Your task to perform on an android device: toggle notification dots Image 0: 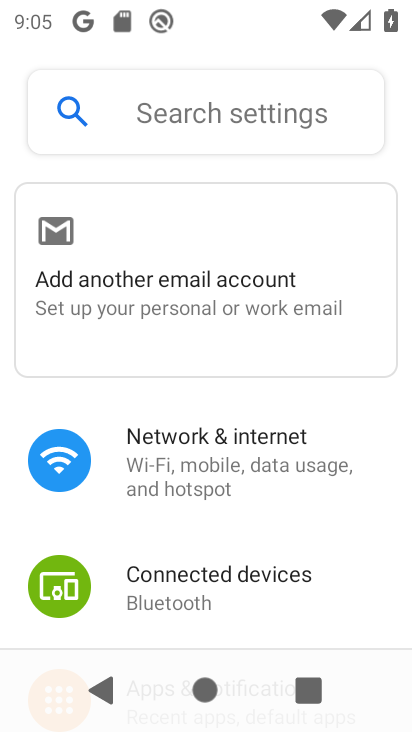
Step 0: drag from (369, 588) to (375, 339)
Your task to perform on an android device: toggle notification dots Image 1: 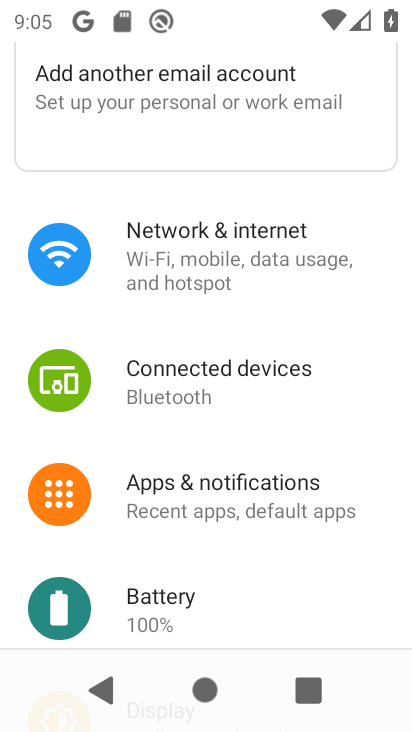
Step 1: drag from (372, 566) to (375, 362)
Your task to perform on an android device: toggle notification dots Image 2: 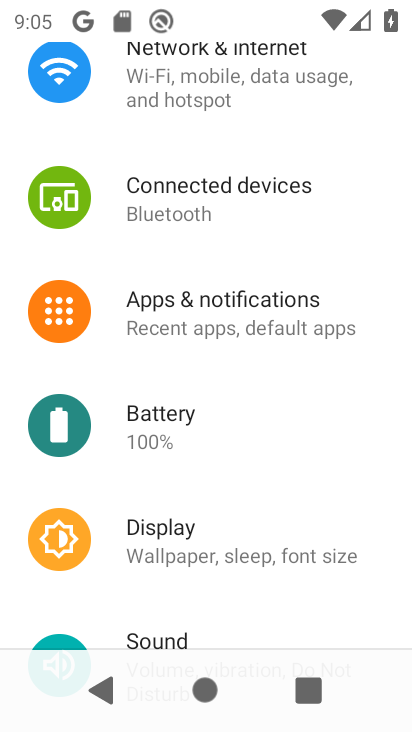
Step 2: drag from (355, 592) to (351, 242)
Your task to perform on an android device: toggle notification dots Image 3: 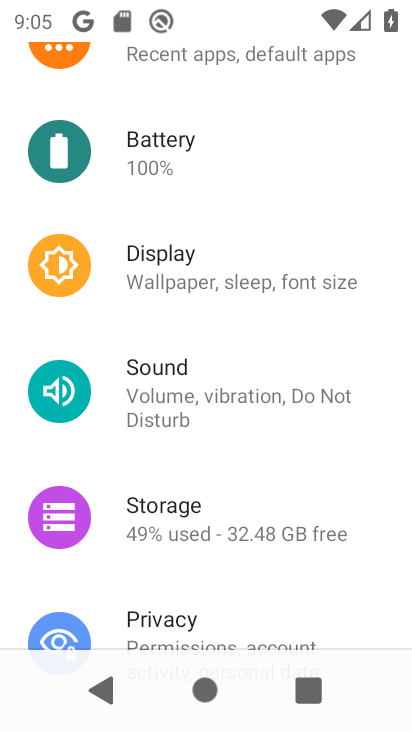
Step 3: drag from (383, 555) to (383, 278)
Your task to perform on an android device: toggle notification dots Image 4: 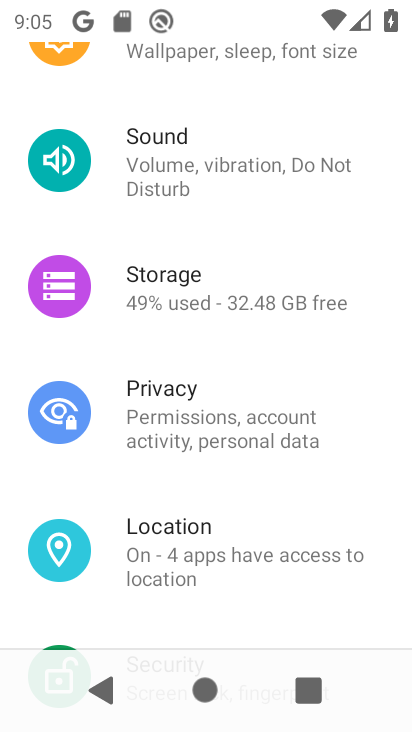
Step 4: drag from (368, 589) to (382, 272)
Your task to perform on an android device: toggle notification dots Image 5: 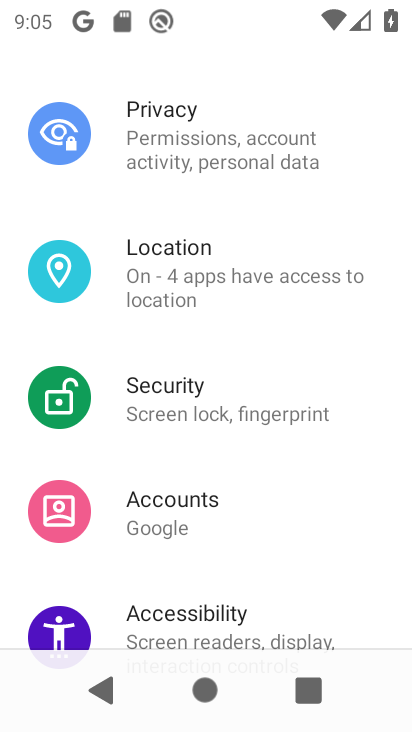
Step 5: drag from (350, 546) to (373, 264)
Your task to perform on an android device: toggle notification dots Image 6: 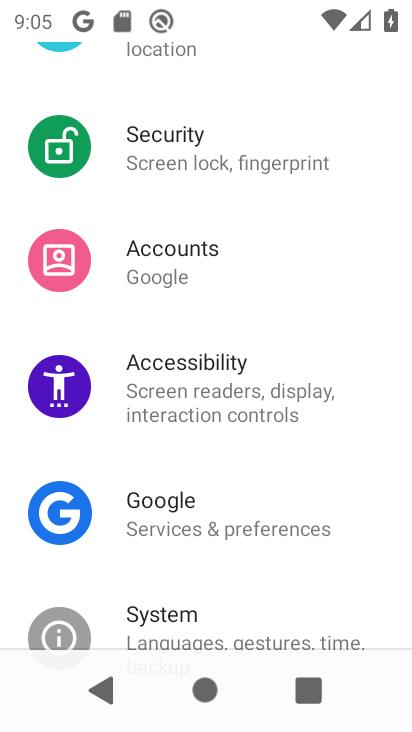
Step 6: drag from (355, 573) to (374, 273)
Your task to perform on an android device: toggle notification dots Image 7: 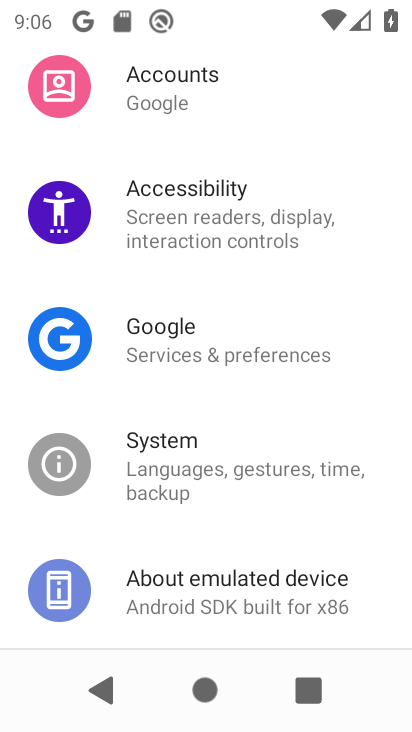
Step 7: drag from (381, 196) to (372, 430)
Your task to perform on an android device: toggle notification dots Image 8: 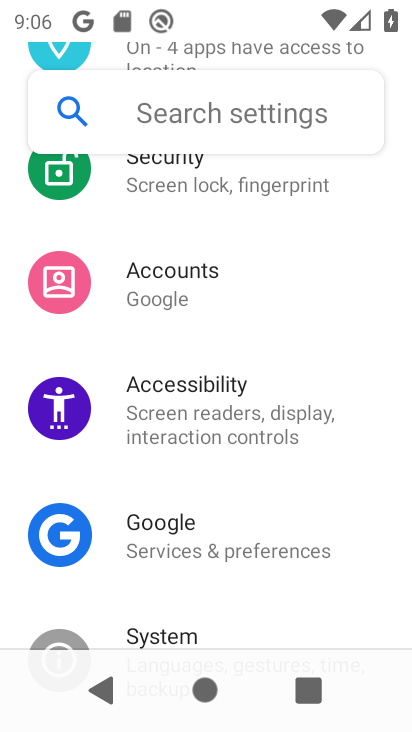
Step 8: drag from (386, 239) to (362, 441)
Your task to perform on an android device: toggle notification dots Image 9: 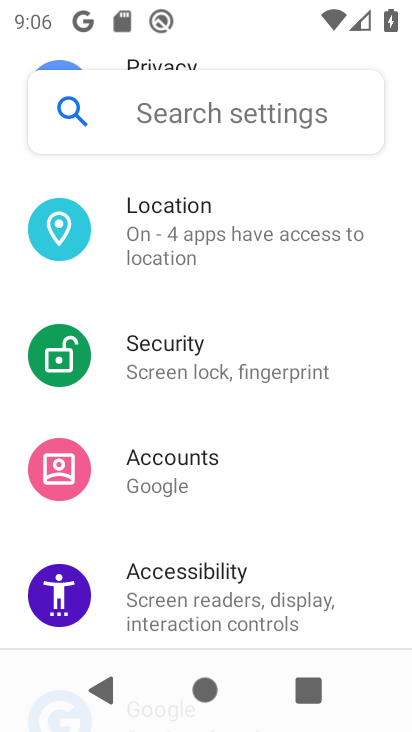
Step 9: drag from (384, 223) to (366, 443)
Your task to perform on an android device: toggle notification dots Image 10: 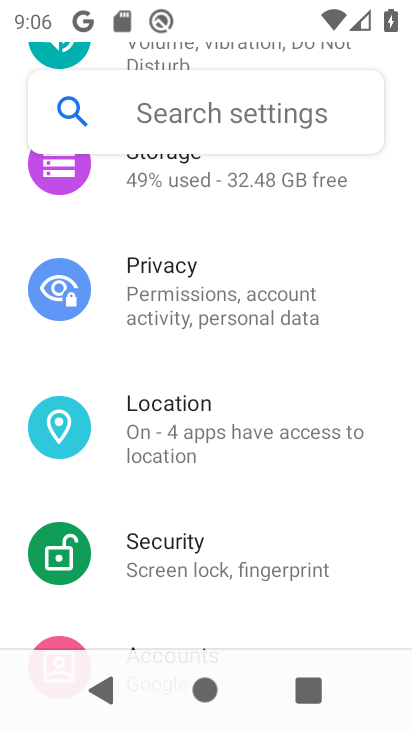
Step 10: drag from (387, 210) to (386, 446)
Your task to perform on an android device: toggle notification dots Image 11: 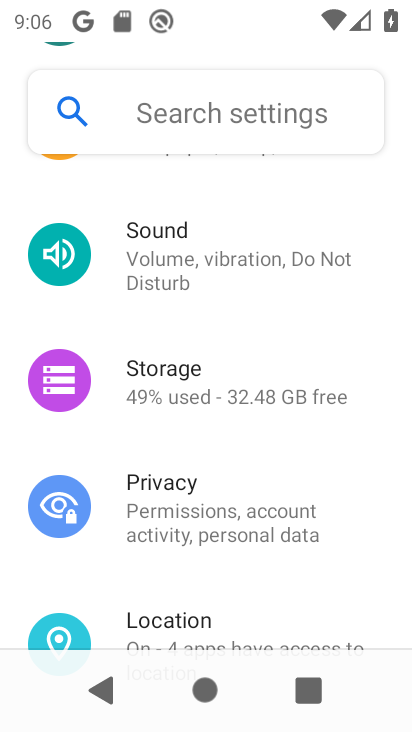
Step 11: drag from (384, 220) to (357, 446)
Your task to perform on an android device: toggle notification dots Image 12: 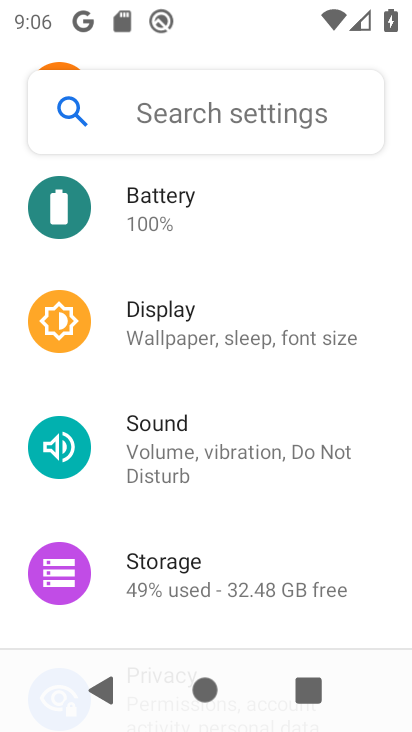
Step 12: drag from (376, 230) to (371, 419)
Your task to perform on an android device: toggle notification dots Image 13: 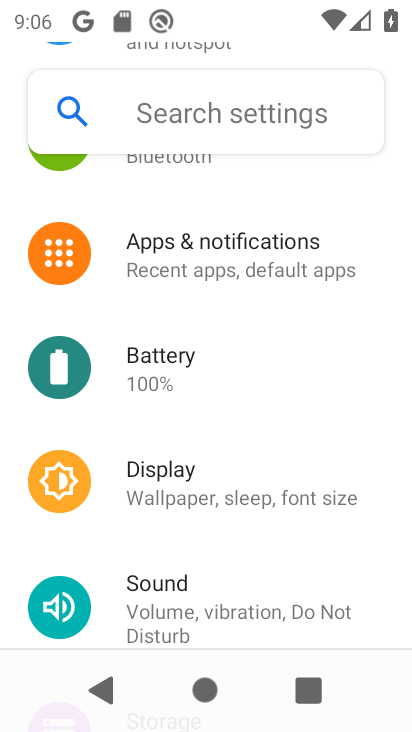
Step 13: click (269, 249)
Your task to perform on an android device: toggle notification dots Image 14: 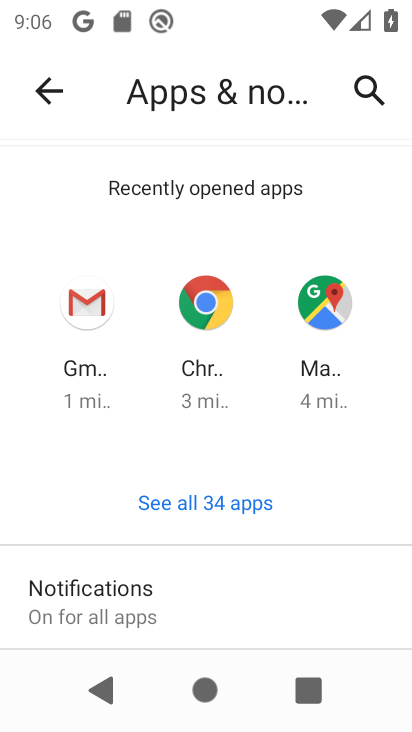
Step 14: drag from (352, 560) to (365, 347)
Your task to perform on an android device: toggle notification dots Image 15: 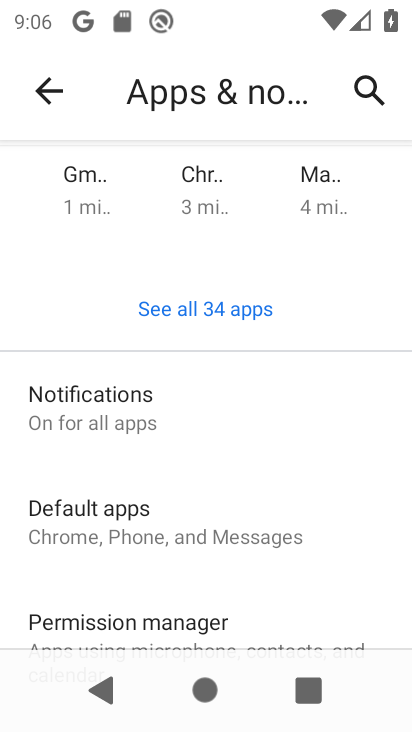
Step 15: click (130, 410)
Your task to perform on an android device: toggle notification dots Image 16: 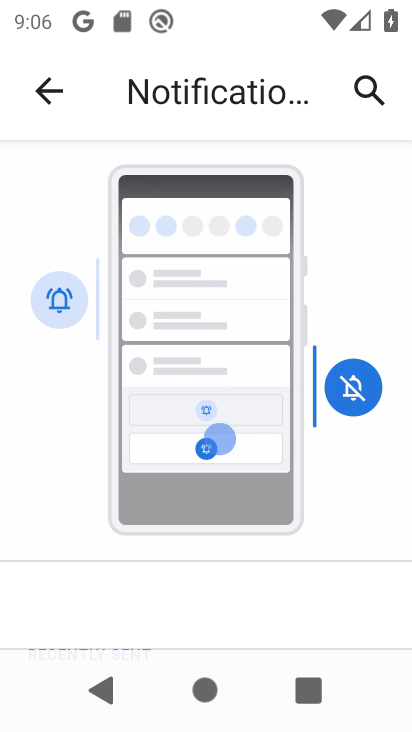
Step 16: drag from (359, 548) to (354, 290)
Your task to perform on an android device: toggle notification dots Image 17: 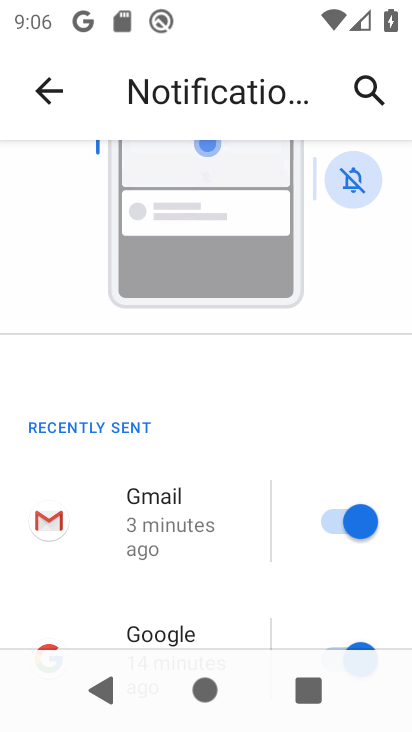
Step 17: drag from (388, 588) to (382, 325)
Your task to perform on an android device: toggle notification dots Image 18: 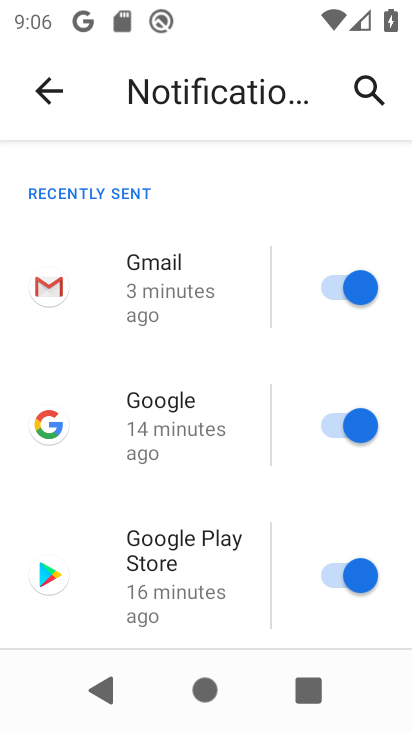
Step 18: drag from (391, 578) to (391, 348)
Your task to perform on an android device: toggle notification dots Image 19: 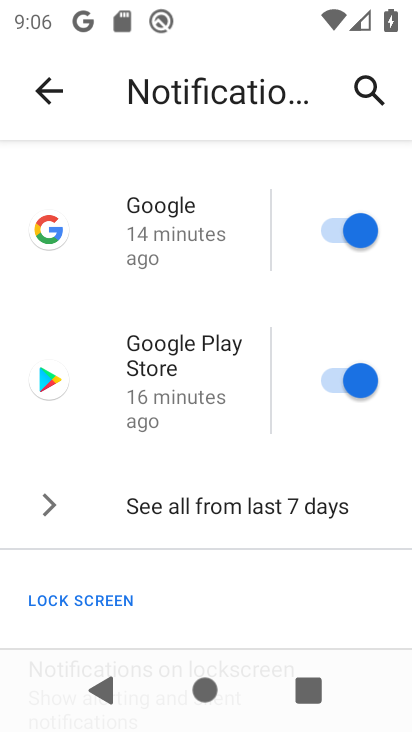
Step 19: drag from (377, 587) to (390, 316)
Your task to perform on an android device: toggle notification dots Image 20: 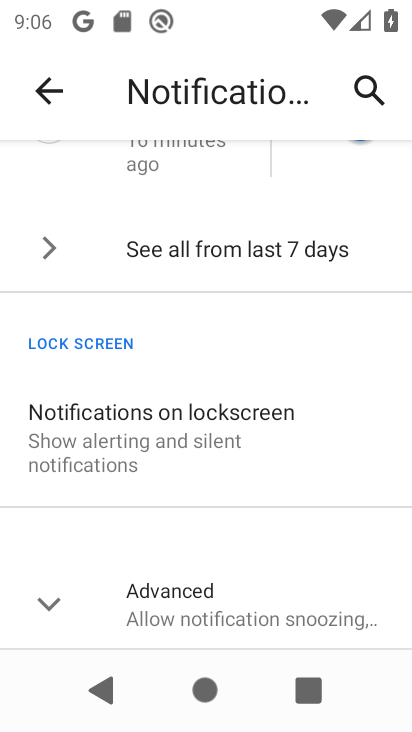
Step 20: drag from (325, 485) to (331, 345)
Your task to perform on an android device: toggle notification dots Image 21: 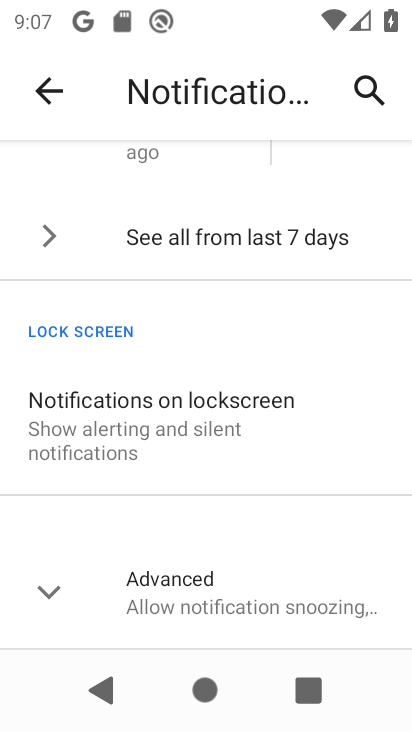
Step 21: click (207, 593)
Your task to perform on an android device: toggle notification dots Image 22: 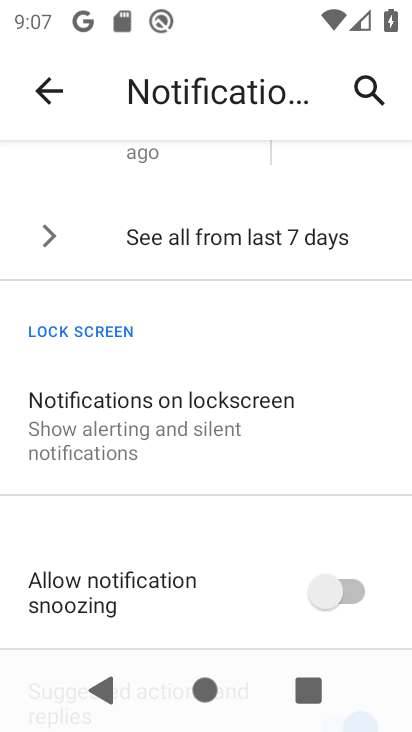
Step 22: drag from (323, 510) to (340, 253)
Your task to perform on an android device: toggle notification dots Image 23: 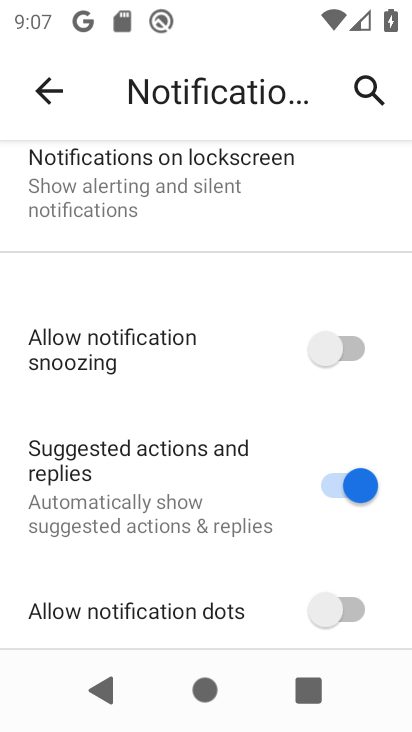
Step 23: drag from (384, 600) to (398, 327)
Your task to perform on an android device: toggle notification dots Image 24: 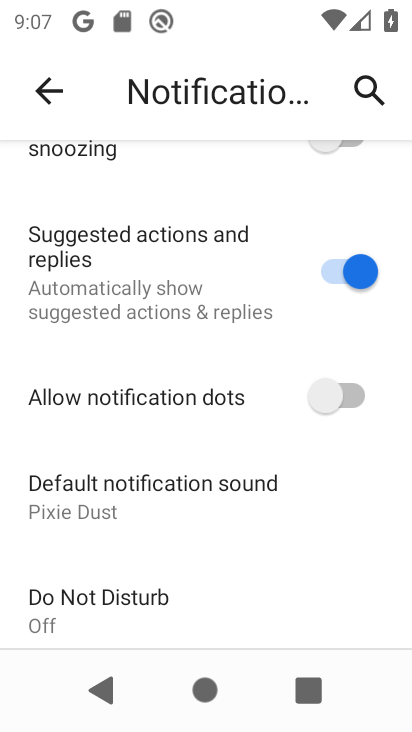
Step 24: drag from (331, 556) to (288, 292)
Your task to perform on an android device: toggle notification dots Image 25: 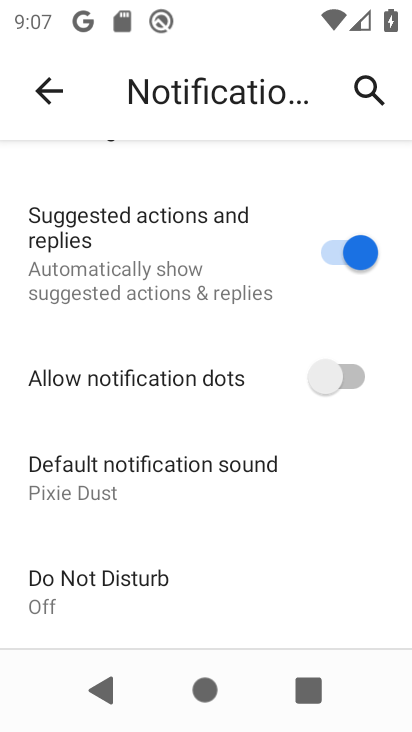
Step 25: click (325, 386)
Your task to perform on an android device: toggle notification dots Image 26: 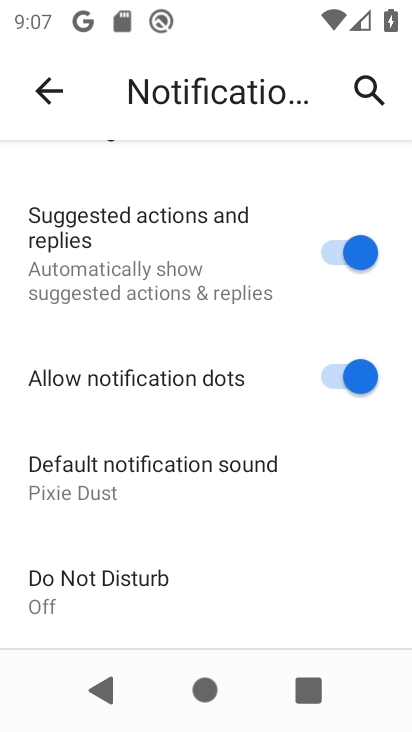
Step 26: task complete